Your task to perform on an android device: Go to Wikipedia Image 0: 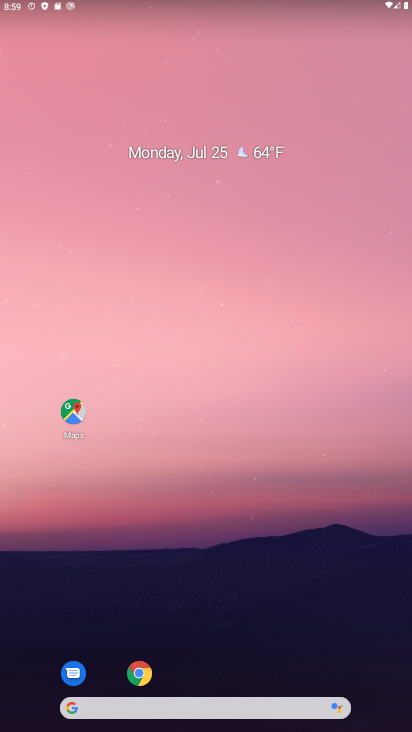
Step 0: press home button
Your task to perform on an android device: Go to Wikipedia Image 1: 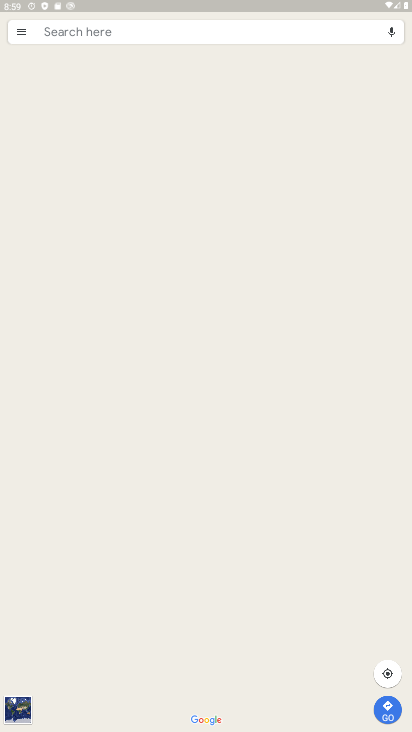
Step 1: drag from (207, 676) to (255, 78)
Your task to perform on an android device: Go to Wikipedia Image 2: 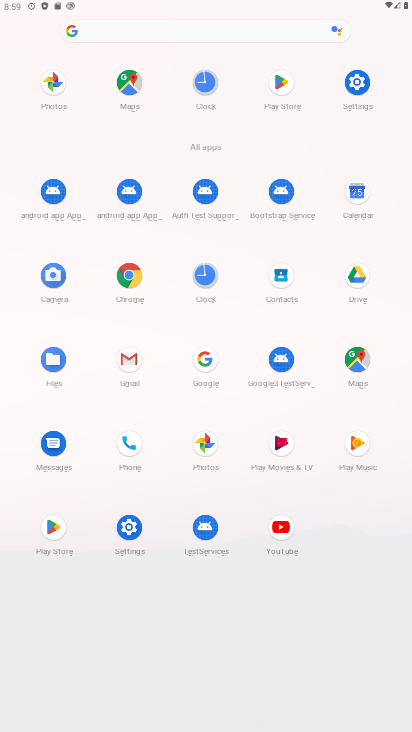
Step 2: click (130, 273)
Your task to perform on an android device: Go to Wikipedia Image 3: 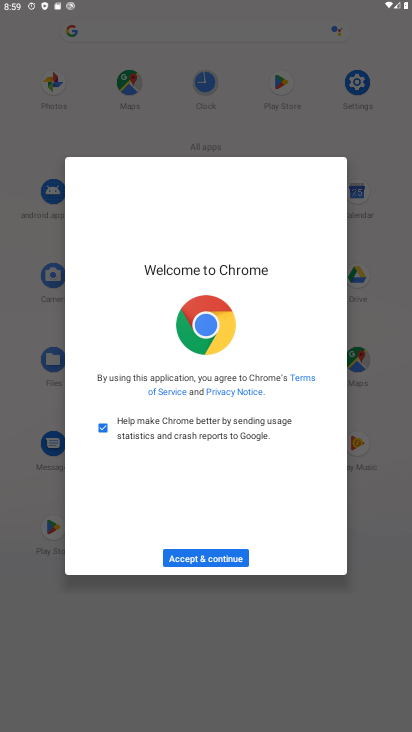
Step 3: click (205, 553)
Your task to perform on an android device: Go to Wikipedia Image 4: 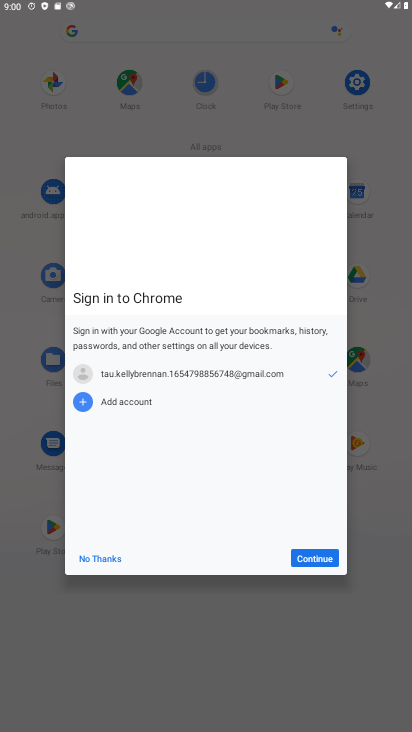
Step 4: click (323, 557)
Your task to perform on an android device: Go to Wikipedia Image 5: 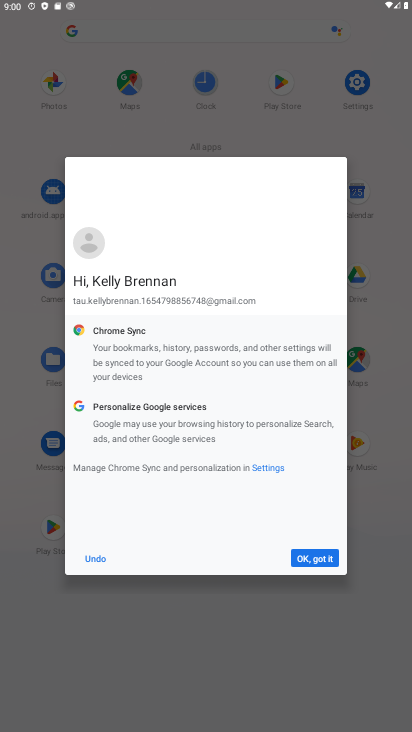
Step 5: click (318, 554)
Your task to perform on an android device: Go to Wikipedia Image 6: 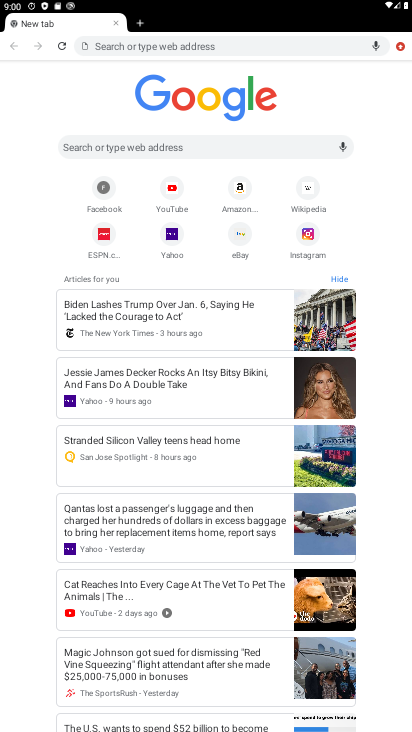
Step 6: click (306, 182)
Your task to perform on an android device: Go to Wikipedia Image 7: 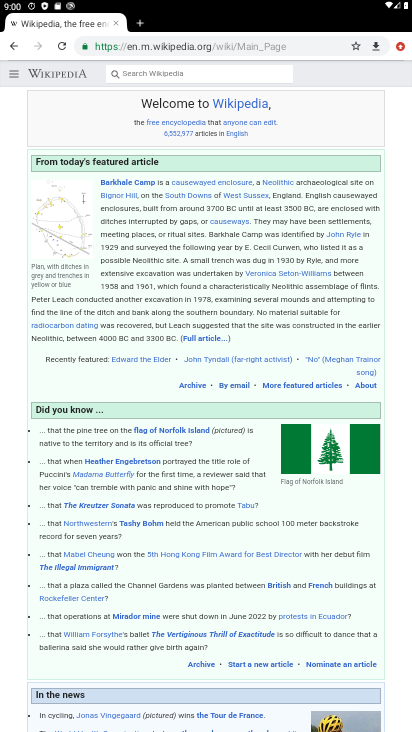
Step 7: task complete